Your task to perform on an android device: turn on notifications settings in the gmail app Image 0: 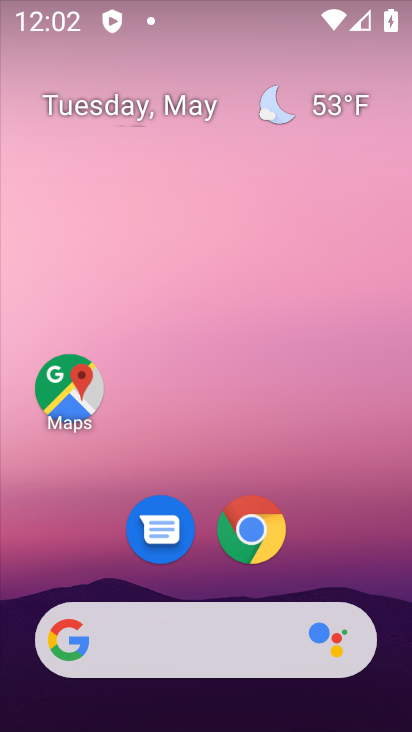
Step 0: drag from (214, 554) to (248, 132)
Your task to perform on an android device: turn on notifications settings in the gmail app Image 1: 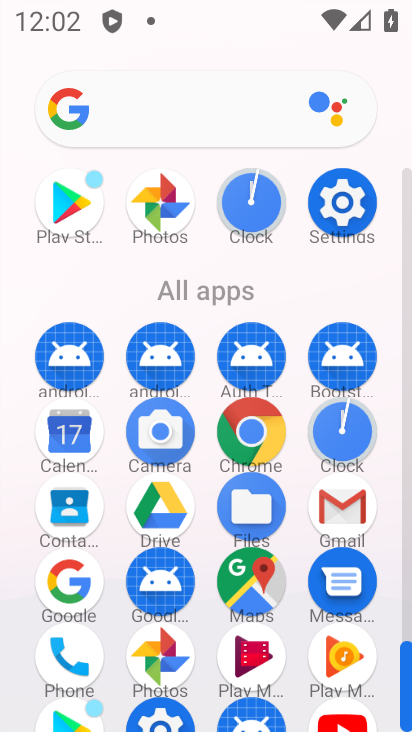
Step 1: click (333, 523)
Your task to perform on an android device: turn on notifications settings in the gmail app Image 2: 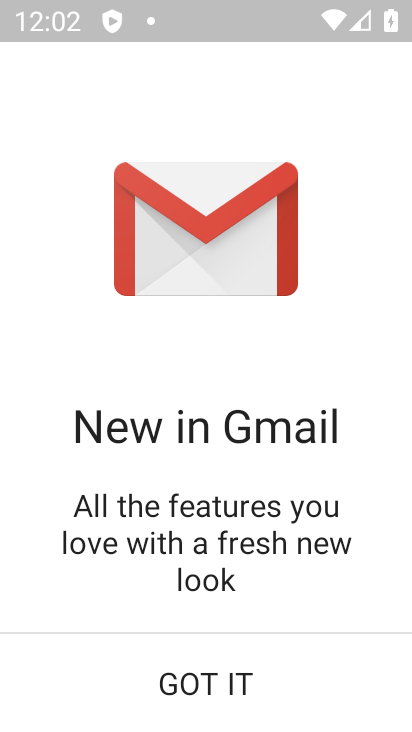
Step 2: click (177, 698)
Your task to perform on an android device: turn on notifications settings in the gmail app Image 3: 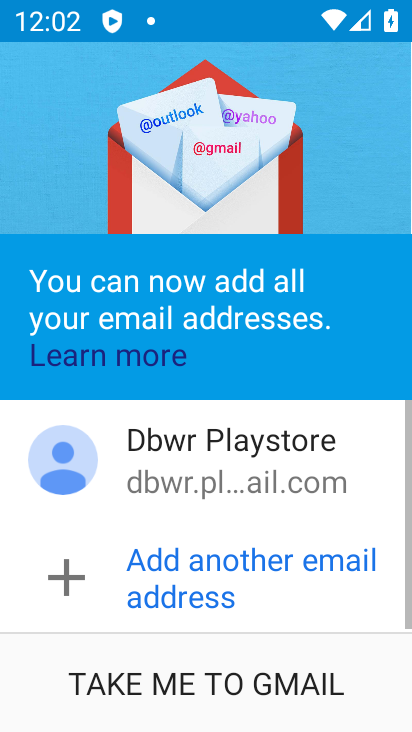
Step 3: click (177, 698)
Your task to perform on an android device: turn on notifications settings in the gmail app Image 4: 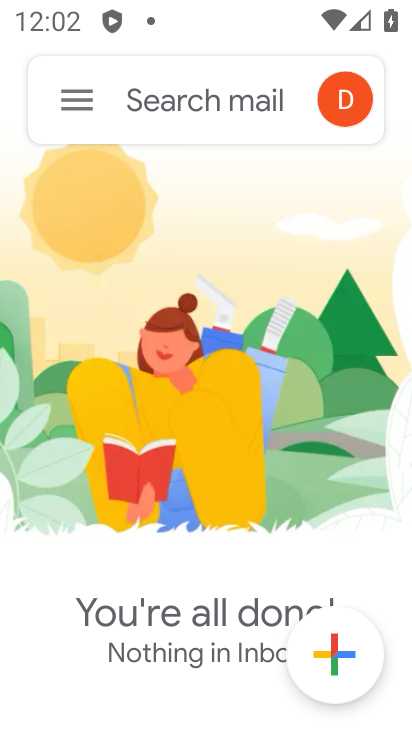
Step 4: click (96, 137)
Your task to perform on an android device: turn on notifications settings in the gmail app Image 5: 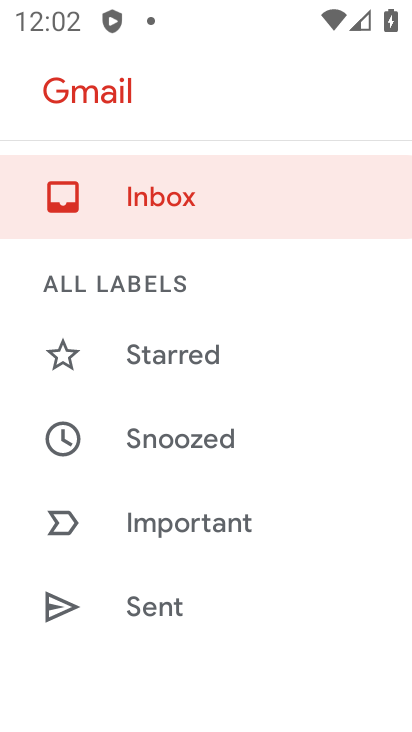
Step 5: drag from (217, 657) to (318, 168)
Your task to perform on an android device: turn on notifications settings in the gmail app Image 6: 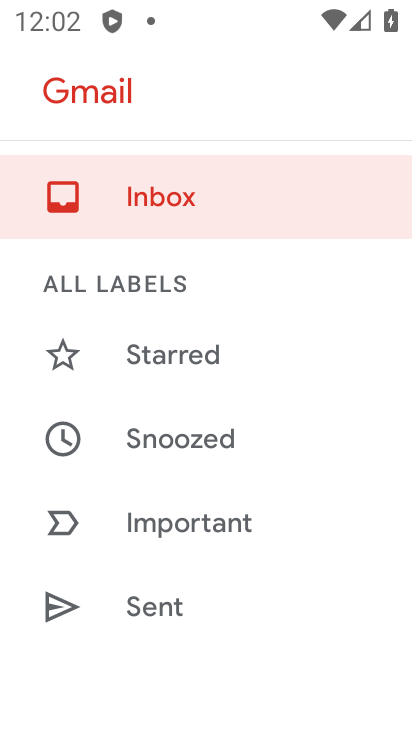
Step 6: drag from (123, 619) to (233, 162)
Your task to perform on an android device: turn on notifications settings in the gmail app Image 7: 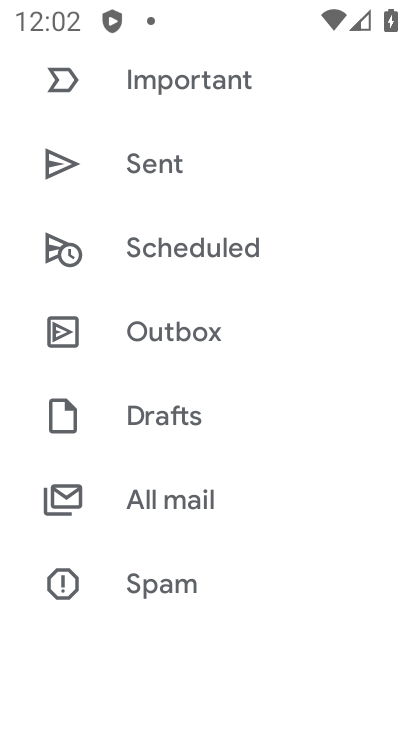
Step 7: drag from (125, 691) to (226, 132)
Your task to perform on an android device: turn on notifications settings in the gmail app Image 8: 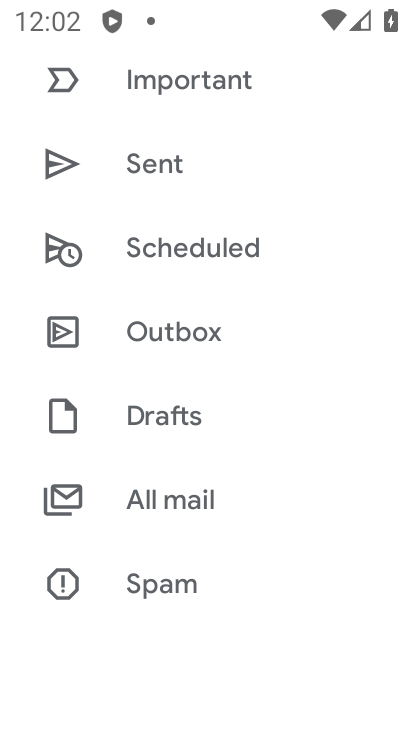
Step 8: drag from (111, 627) to (187, 179)
Your task to perform on an android device: turn on notifications settings in the gmail app Image 9: 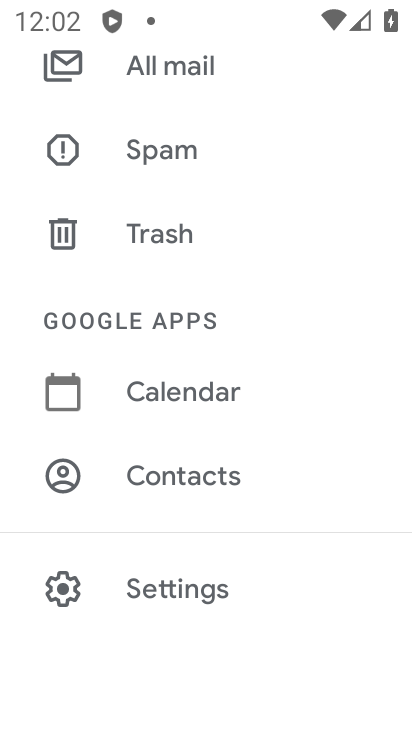
Step 9: click (182, 570)
Your task to perform on an android device: turn on notifications settings in the gmail app Image 10: 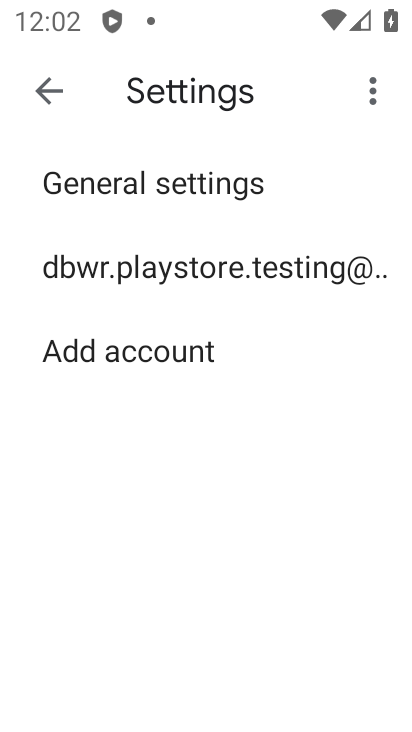
Step 10: click (269, 280)
Your task to perform on an android device: turn on notifications settings in the gmail app Image 11: 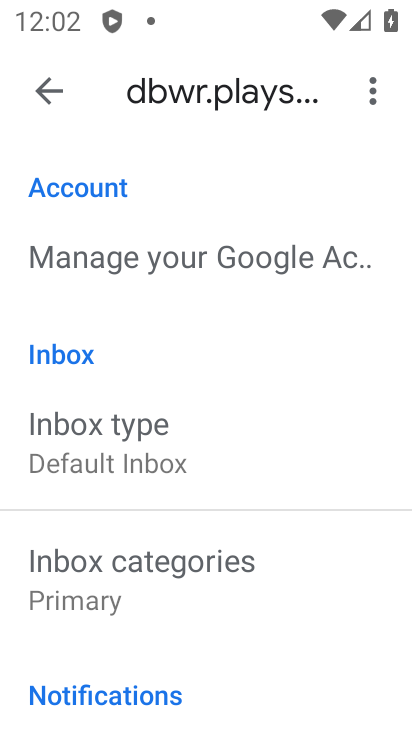
Step 11: drag from (163, 587) to (199, 180)
Your task to perform on an android device: turn on notifications settings in the gmail app Image 12: 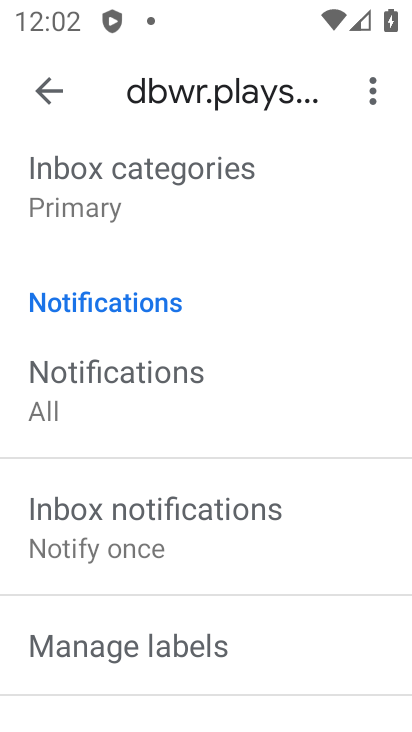
Step 12: click (221, 435)
Your task to perform on an android device: turn on notifications settings in the gmail app Image 13: 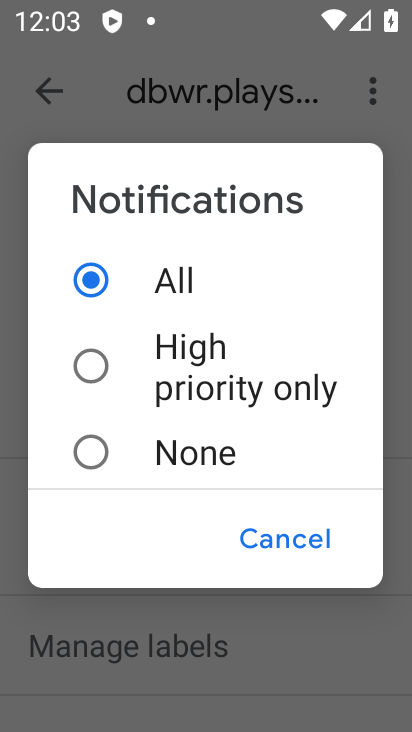
Step 13: click (235, 379)
Your task to perform on an android device: turn on notifications settings in the gmail app Image 14: 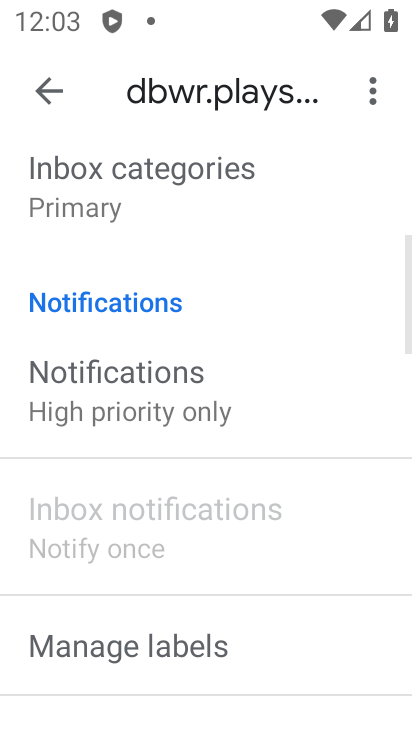
Step 14: task complete